Your task to perform on an android device: Clear the shopping cart on newegg.com. Add "bose quietcomfort 35" to the cart on newegg.com, then select checkout. Image 0: 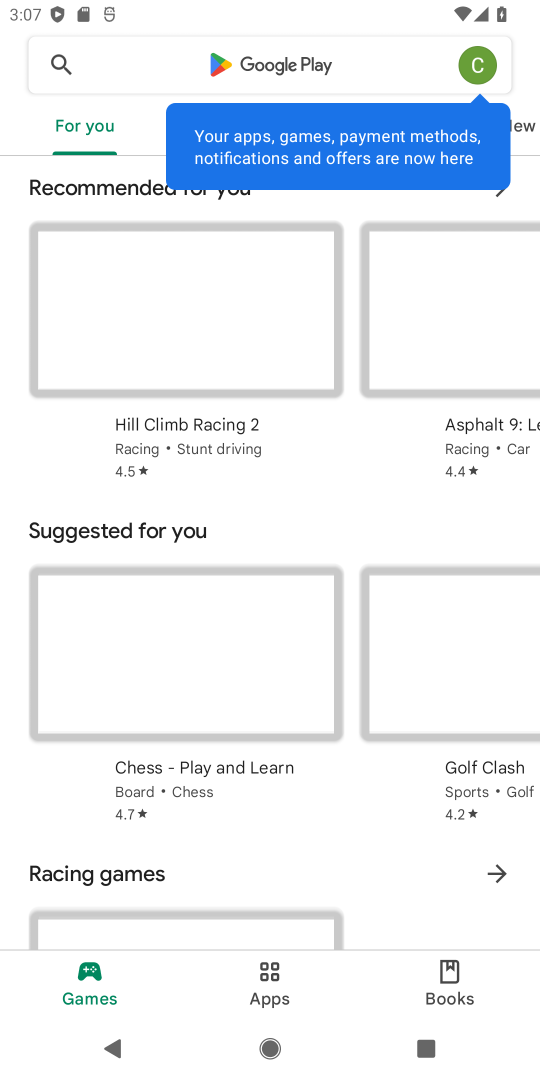
Step 0: press home button
Your task to perform on an android device: Clear the shopping cart on newegg.com. Add "bose quietcomfort 35" to the cart on newegg.com, then select checkout. Image 1: 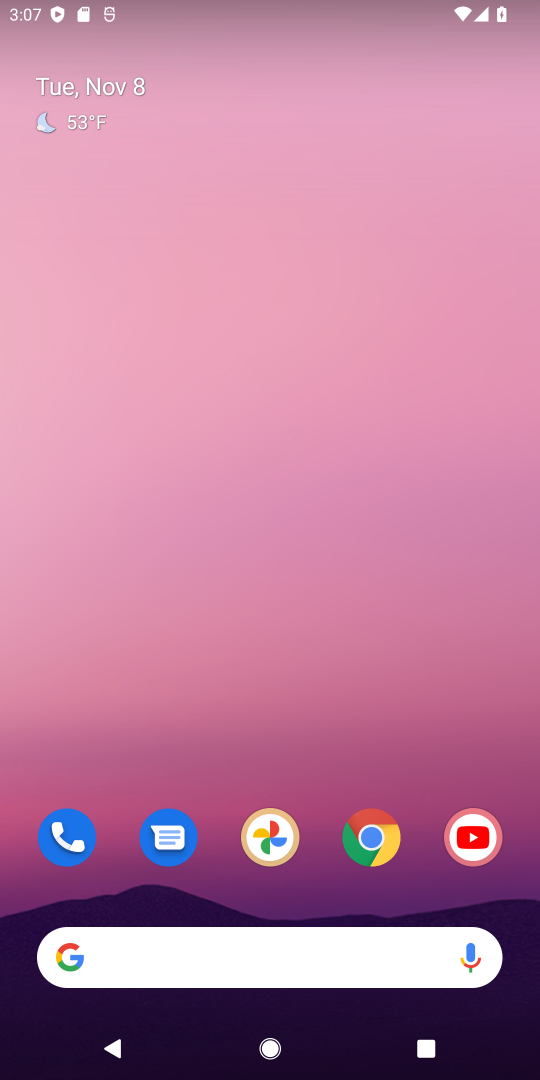
Step 1: click (370, 830)
Your task to perform on an android device: Clear the shopping cart on newegg.com. Add "bose quietcomfort 35" to the cart on newegg.com, then select checkout. Image 2: 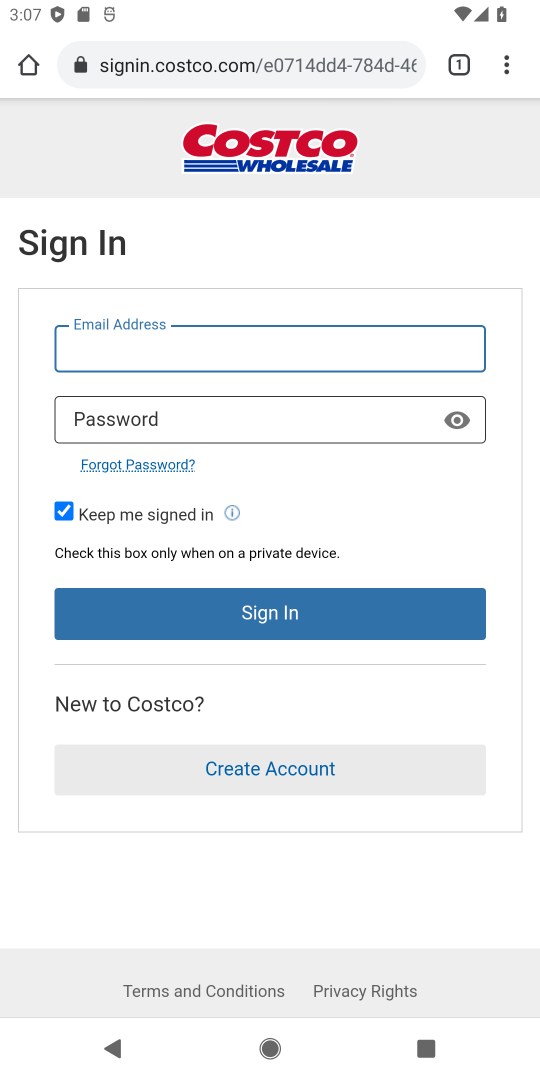
Step 2: click (201, 69)
Your task to perform on an android device: Clear the shopping cart on newegg.com. Add "bose quietcomfort 35" to the cart on newegg.com, then select checkout. Image 3: 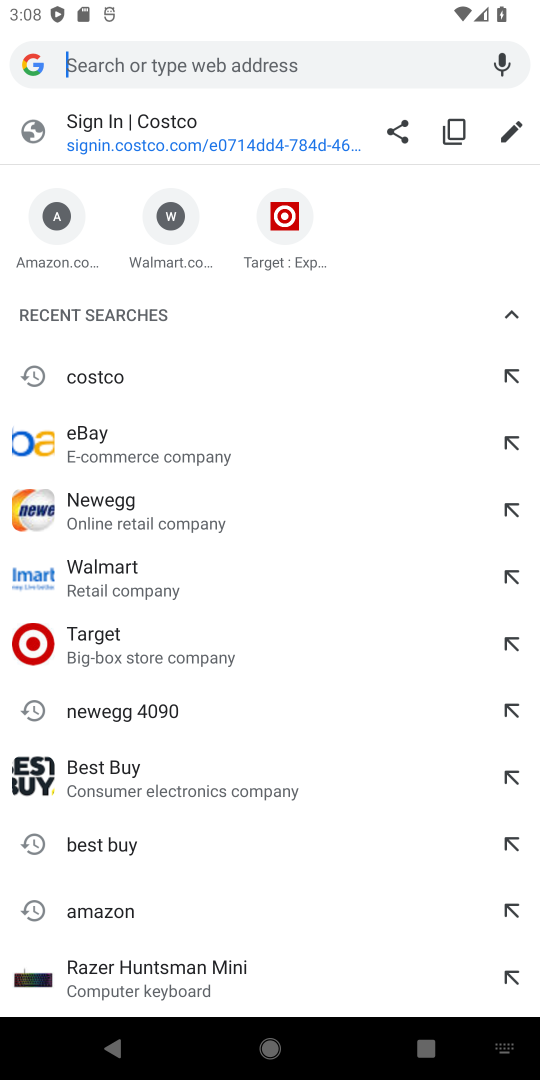
Step 3: click (106, 506)
Your task to perform on an android device: Clear the shopping cart on newegg.com. Add "bose quietcomfort 35" to the cart on newegg.com, then select checkout. Image 4: 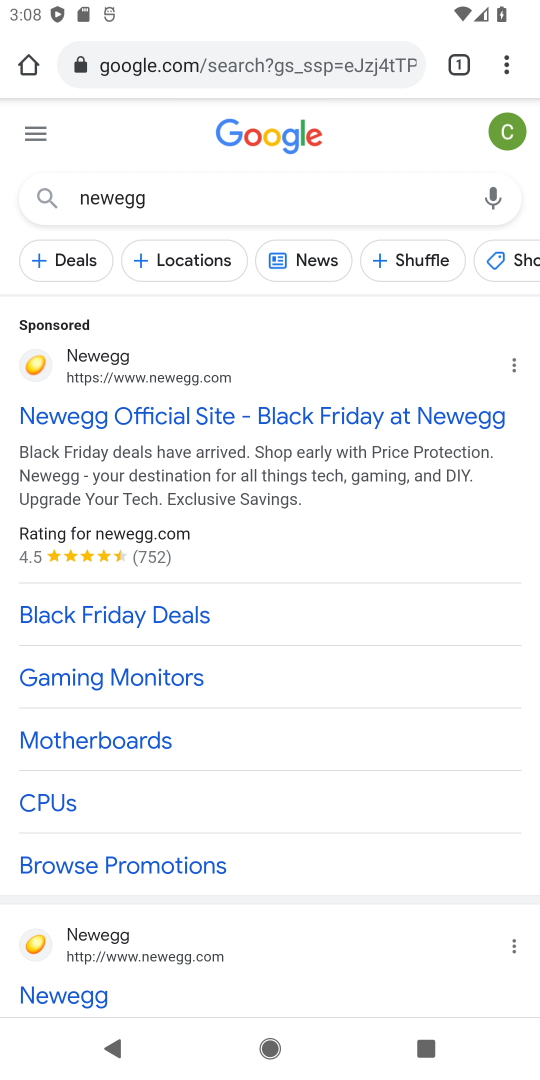
Step 4: drag from (253, 799) to (212, 256)
Your task to perform on an android device: Clear the shopping cart on newegg.com. Add "bose quietcomfort 35" to the cart on newegg.com, then select checkout. Image 5: 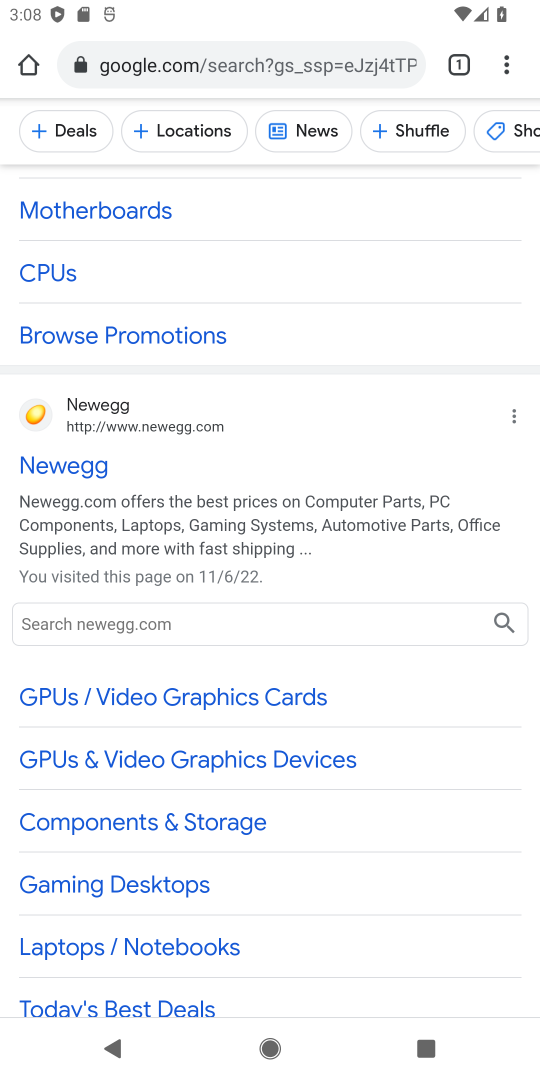
Step 5: click (63, 463)
Your task to perform on an android device: Clear the shopping cart on newegg.com. Add "bose quietcomfort 35" to the cart on newegg.com, then select checkout. Image 6: 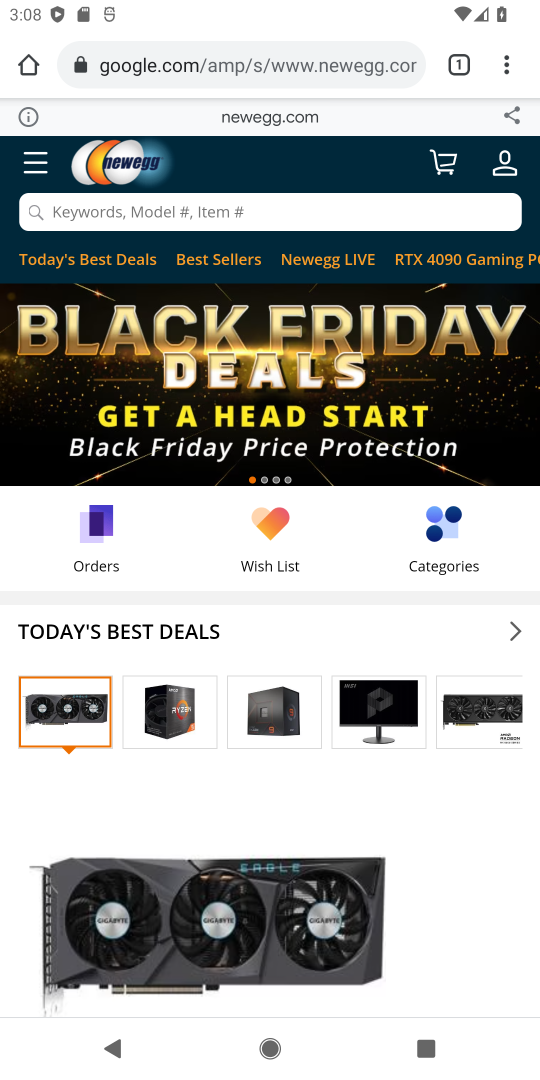
Step 6: click (180, 217)
Your task to perform on an android device: Clear the shopping cart on newegg.com. Add "bose quietcomfort 35" to the cart on newegg.com, then select checkout. Image 7: 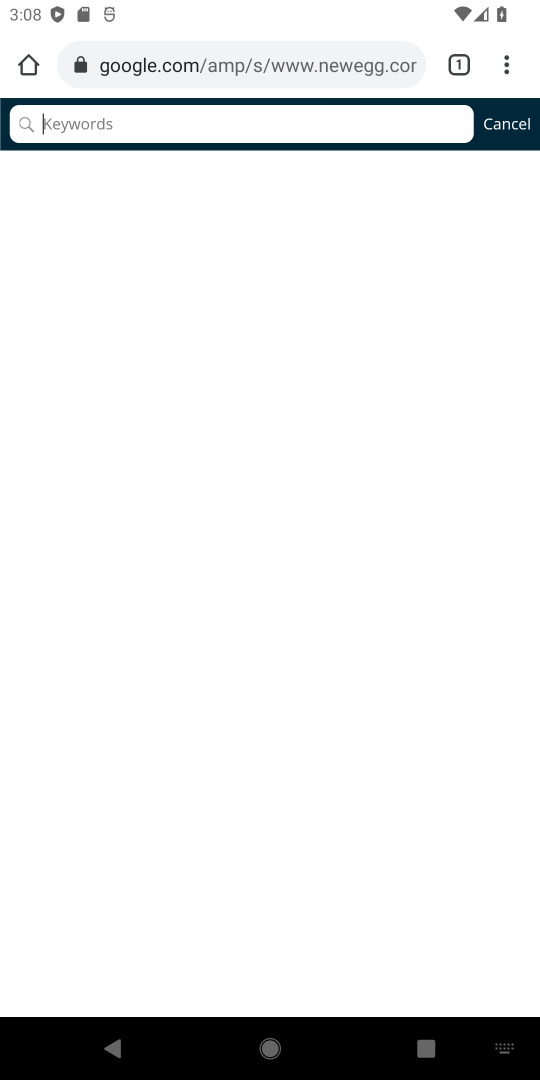
Step 7: type "bose quietcomfort 35"
Your task to perform on an android device: Clear the shopping cart on newegg.com. Add "bose quietcomfort 35" to the cart on newegg.com, then select checkout. Image 8: 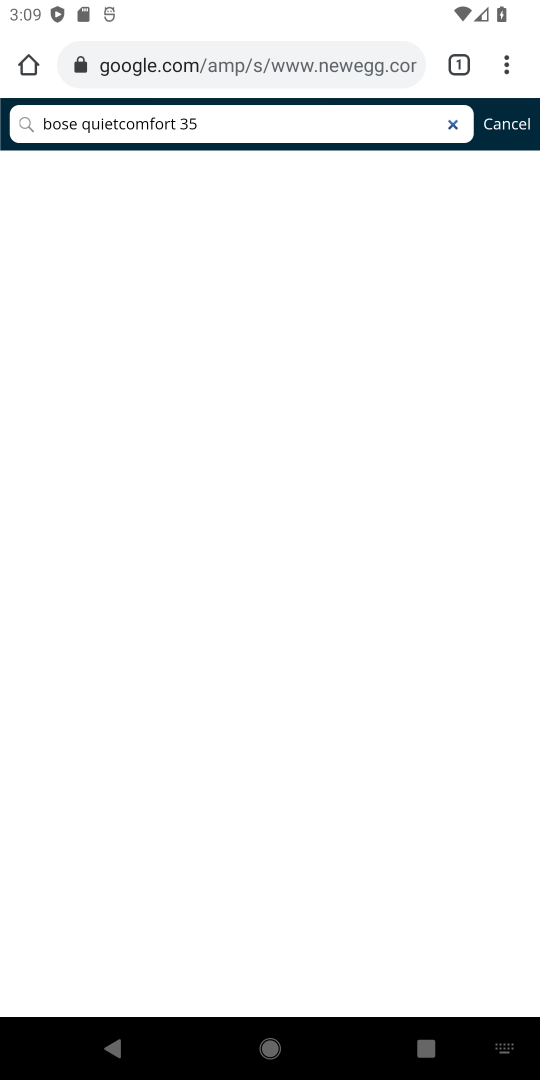
Step 8: click (254, 125)
Your task to perform on an android device: Clear the shopping cart on newegg.com. Add "bose quietcomfort 35" to the cart on newegg.com, then select checkout. Image 9: 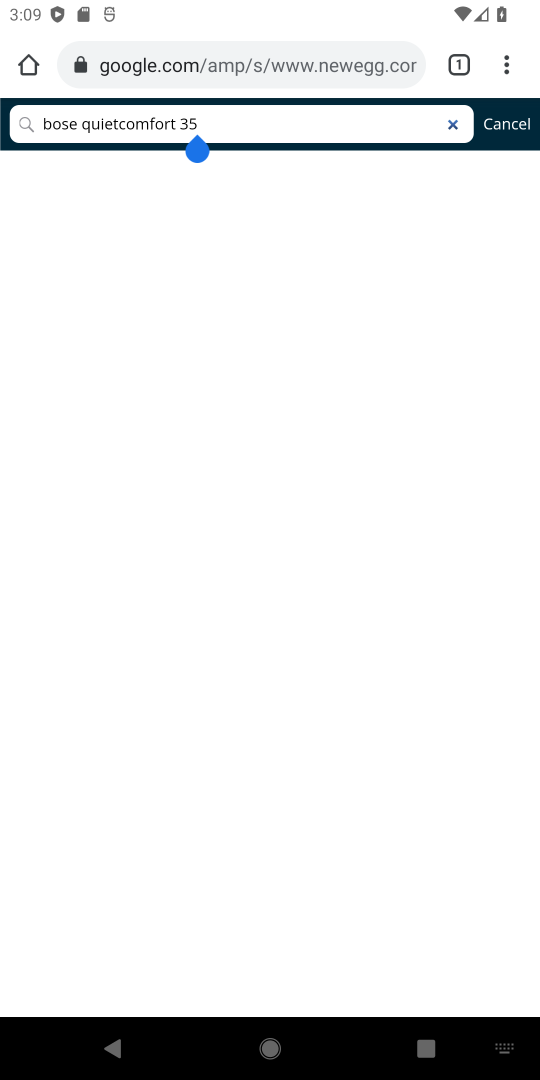
Step 9: click (459, 129)
Your task to perform on an android device: Clear the shopping cart on newegg.com. Add "bose quietcomfort 35" to the cart on newegg.com, then select checkout. Image 10: 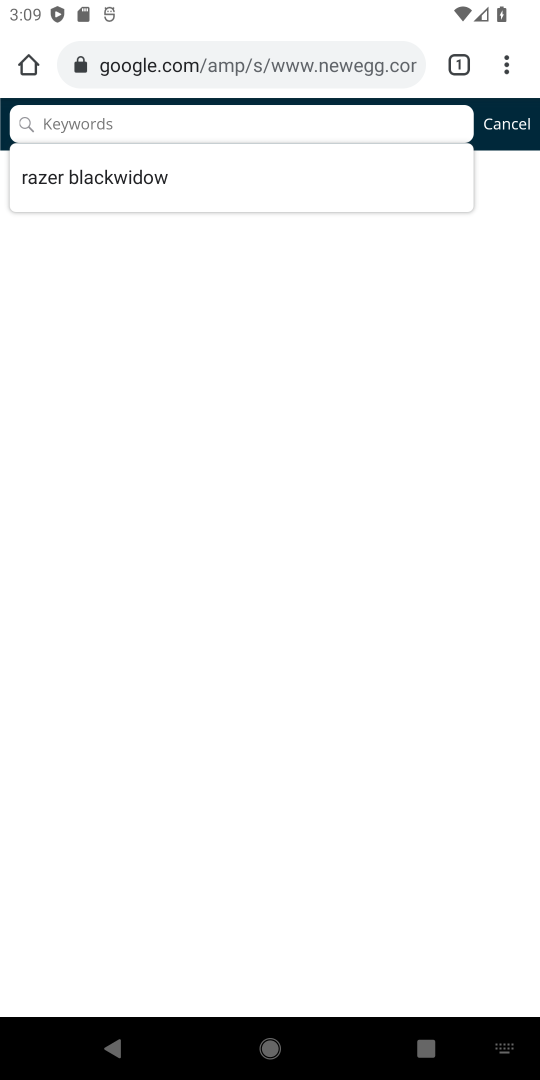
Step 10: type "bose quietcomfort 35"
Your task to perform on an android device: Clear the shopping cart on newegg.com. Add "bose quietcomfort 35" to the cart on newegg.com, then select checkout. Image 11: 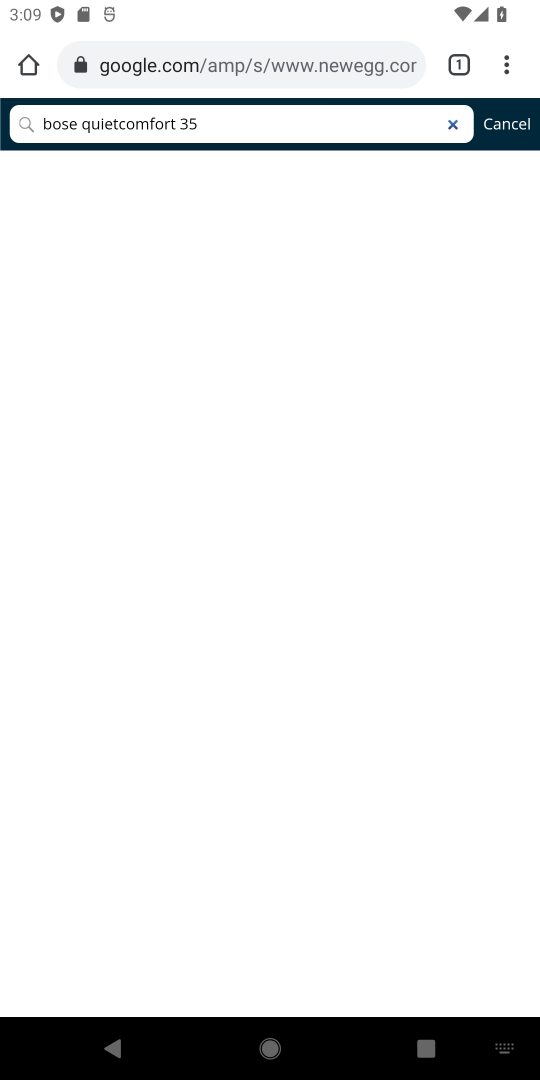
Step 11: type ""
Your task to perform on an android device: Clear the shopping cart on newegg.com. Add "bose quietcomfort 35" to the cart on newegg.com, then select checkout. Image 12: 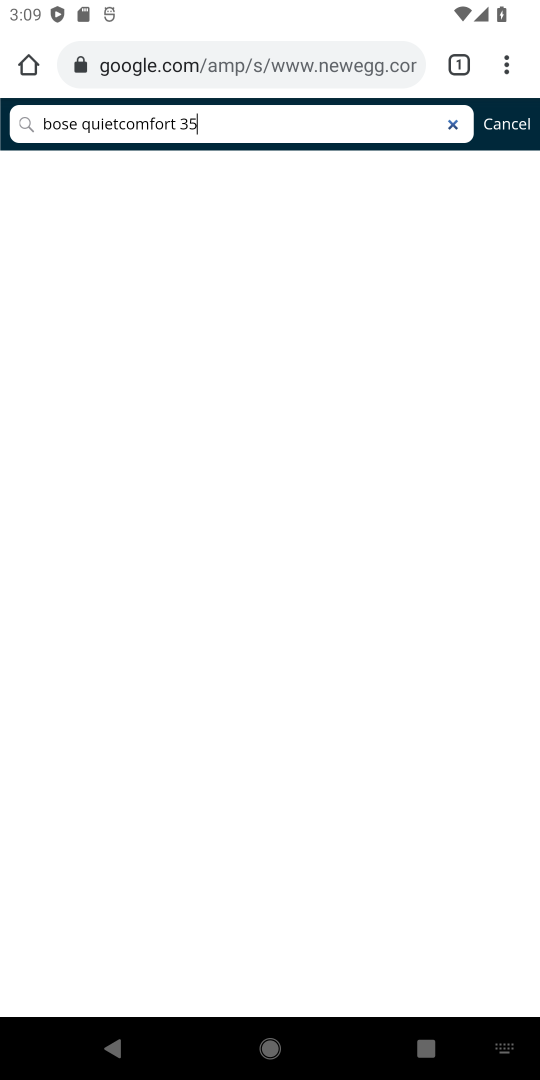
Step 12: type ""
Your task to perform on an android device: Clear the shopping cart on newegg.com. Add "bose quietcomfort 35" to the cart on newegg.com, then select checkout. Image 13: 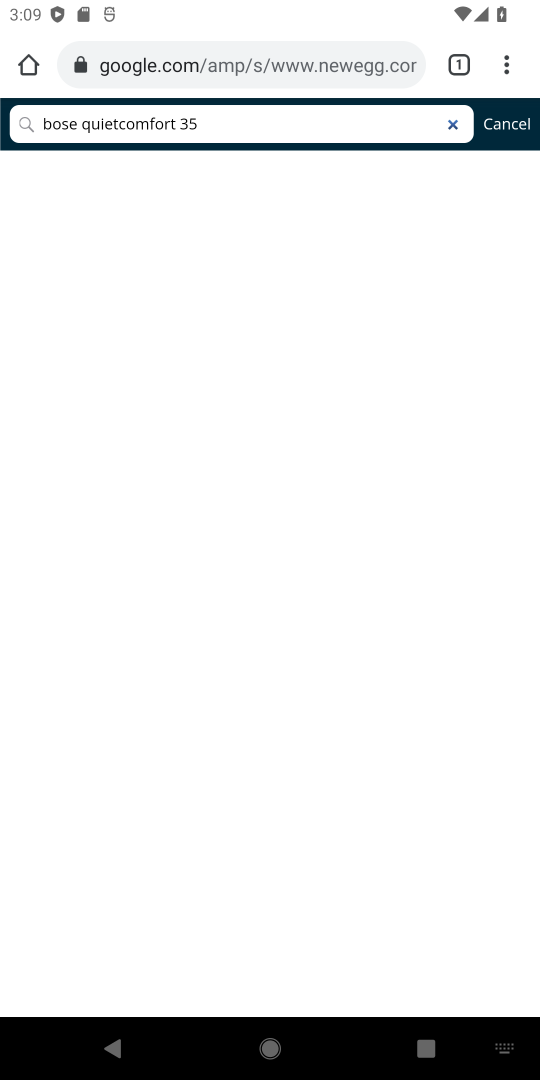
Step 13: click (458, 127)
Your task to perform on an android device: Clear the shopping cart on newegg.com. Add "bose quietcomfort 35" to the cart on newegg.com, then select checkout. Image 14: 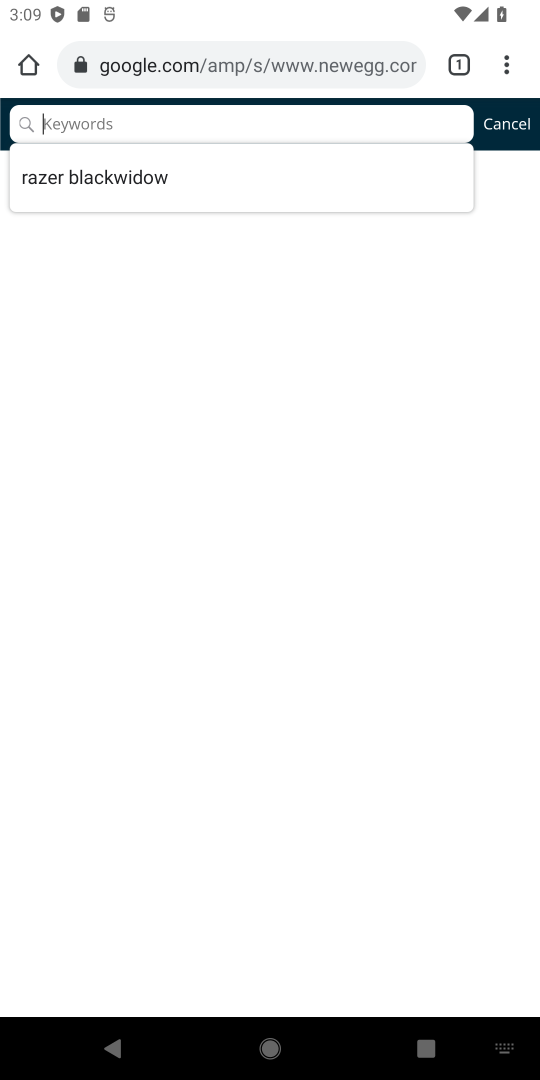
Step 14: press back button
Your task to perform on an android device: Clear the shopping cart on newegg.com. Add "bose quietcomfort 35" to the cart on newegg.com, then select checkout. Image 15: 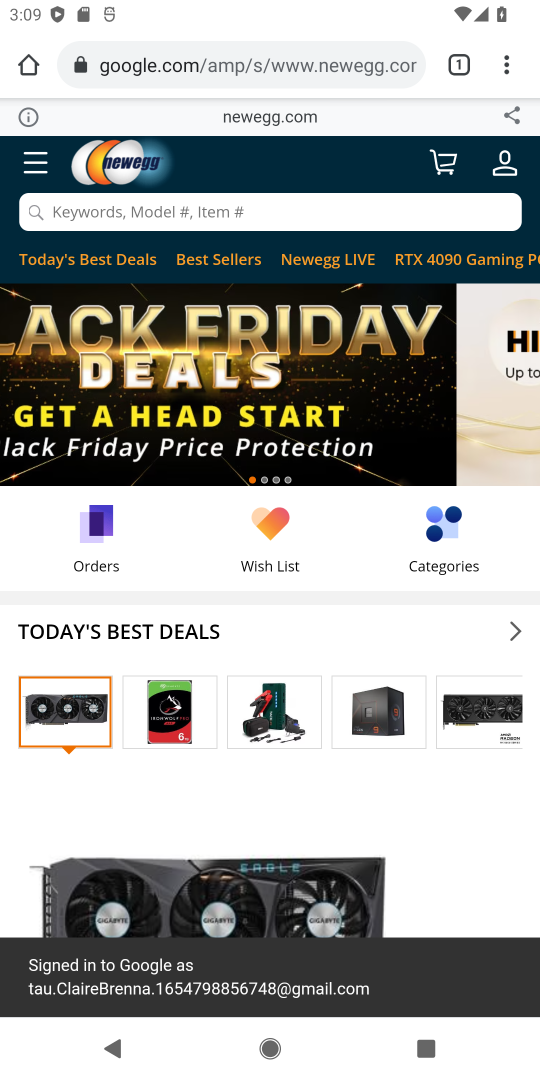
Step 15: click (146, 219)
Your task to perform on an android device: Clear the shopping cart on newegg.com. Add "bose quietcomfort 35" to the cart on newegg.com, then select checkout. Image 16: 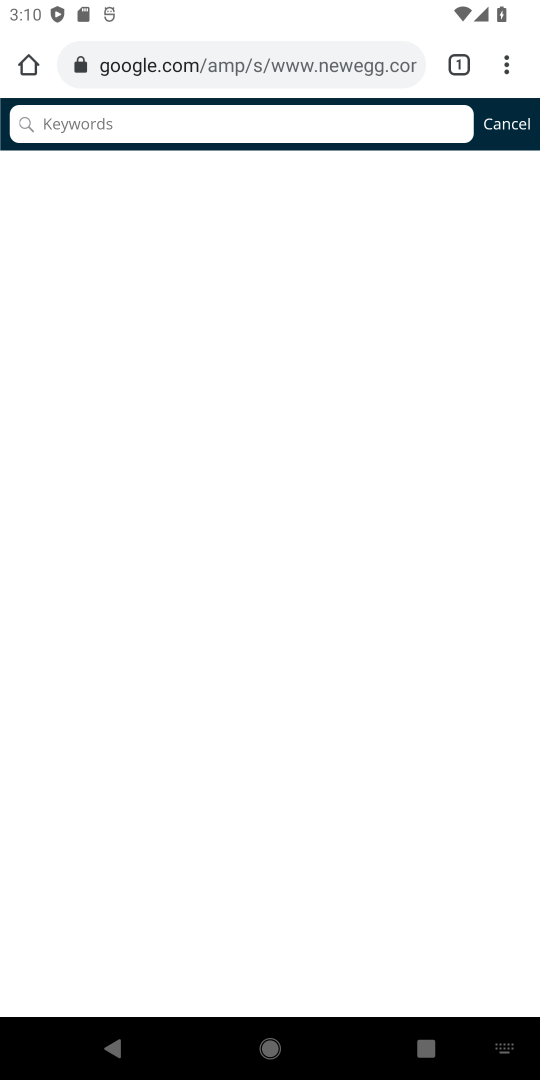
Step 16: type "bose quietcomfort"
Your task to perform on an android device: Clear the shopping cart on newegg.com. Add "bose quietcomfort 35" to the cart on newegg.com, then select checkout. Image 17: 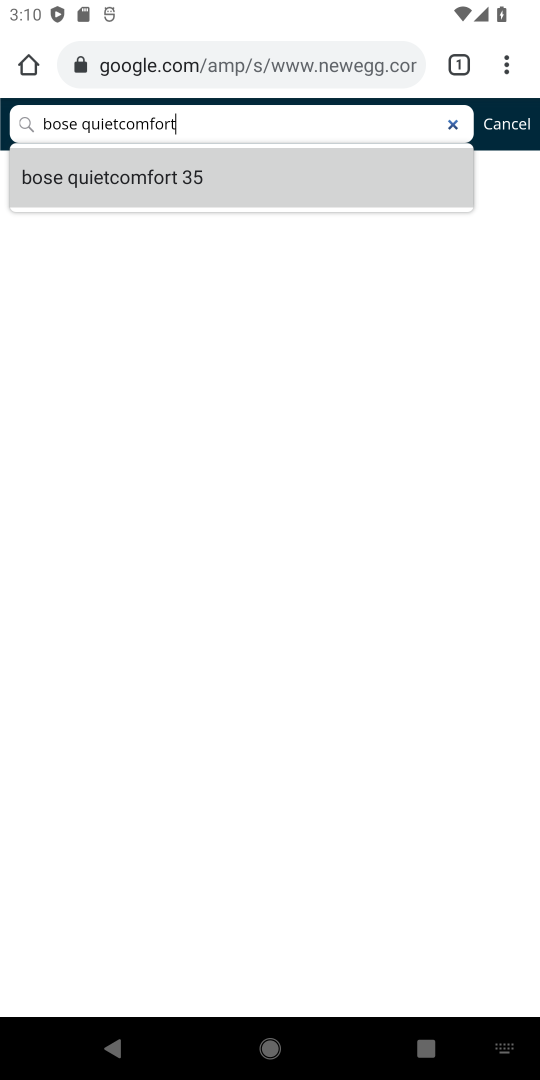
Step 17: click (78, 193)
Your task to perform on an android device: Clear the shopping cart on newegg.com. Add "bose quietcomfort 35" to the cart on newegg.com, then select checkout. Image 18: 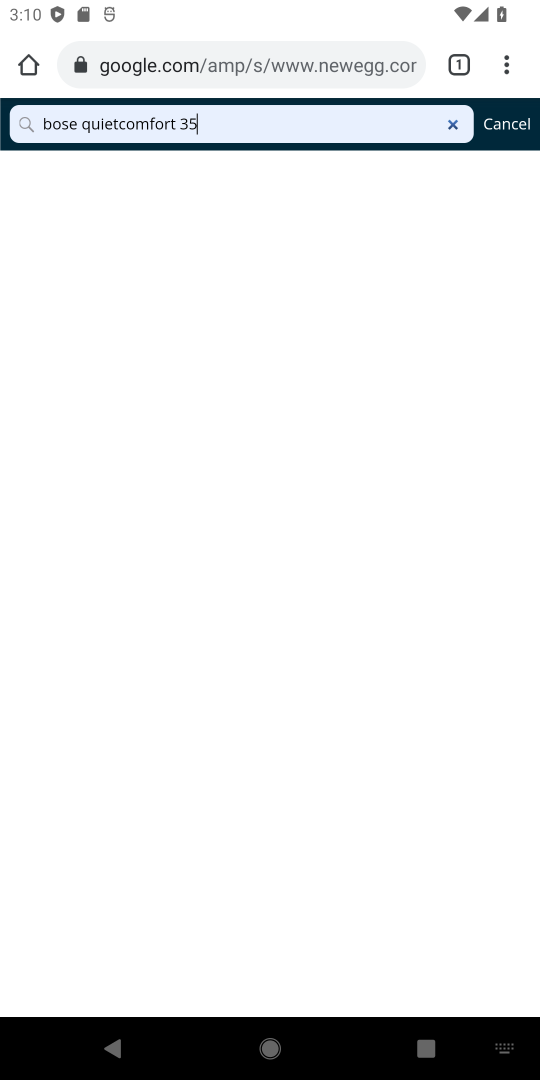
Step 18: click (269, 134)
Your task to perform on an android device: Clear the shopping cart on newegg.com. Add "bose quietcomfort 35" to the cart on newegg.com, then select checkout. Image 19: 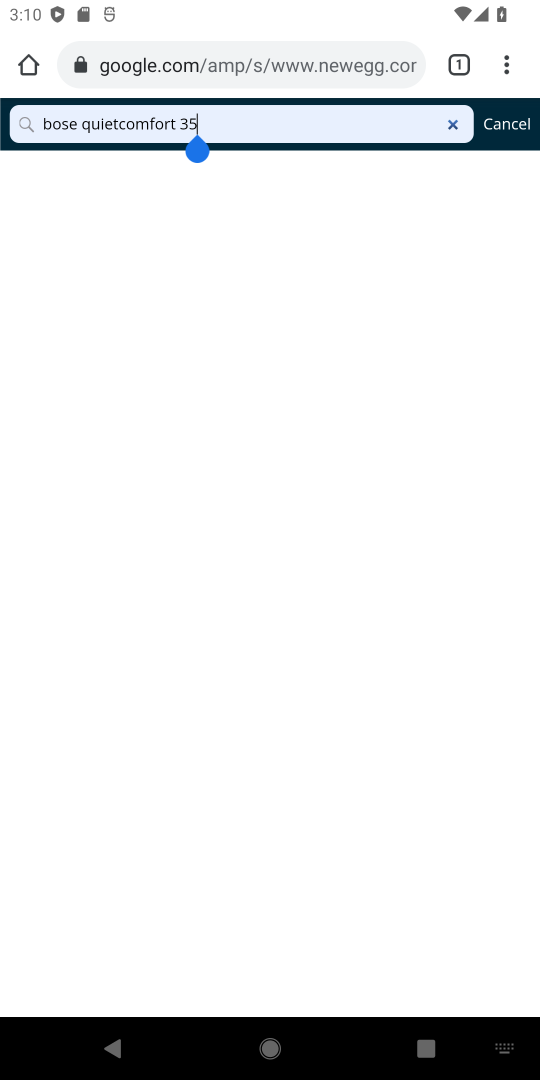
Step 19: click (189, 134)
Your task to perform on an android device: Clear the shopping cart on newegg.com. Add "bose quietcomfort 35" to the cart on newegg.com, then select checkout. Image 20: 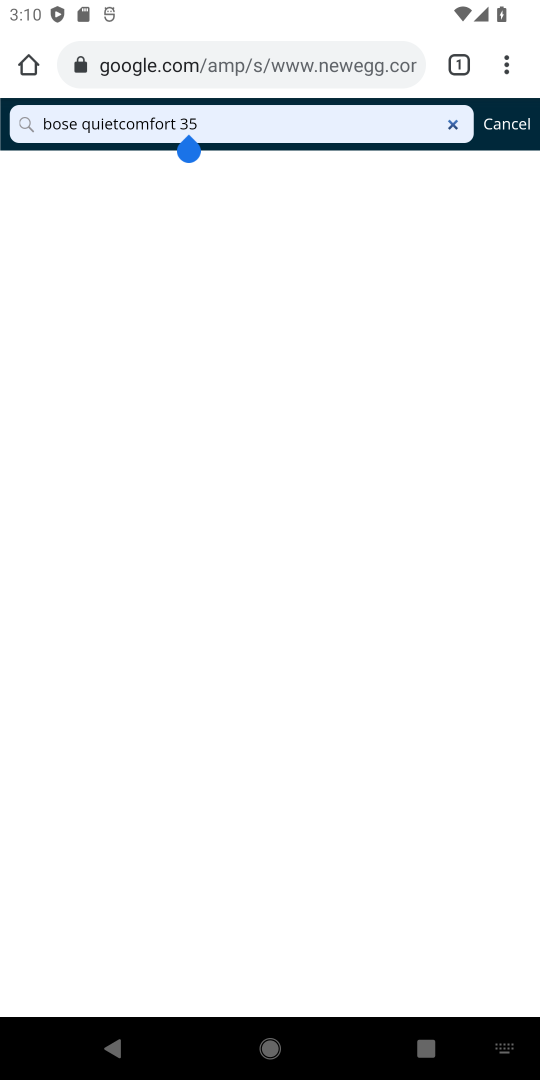
Step 20: task complete